Your task to perform on an android device: Go to Yahoo.com Image 0: 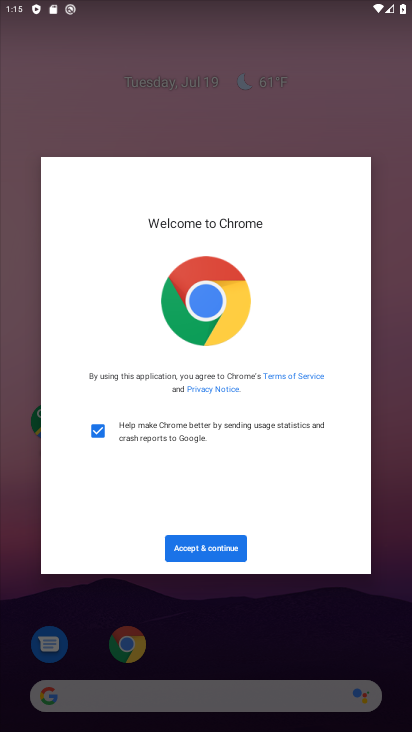
Step 0: click (206, 554)
Your task to perform on an android device: Go to Yahoo.com Image 1: 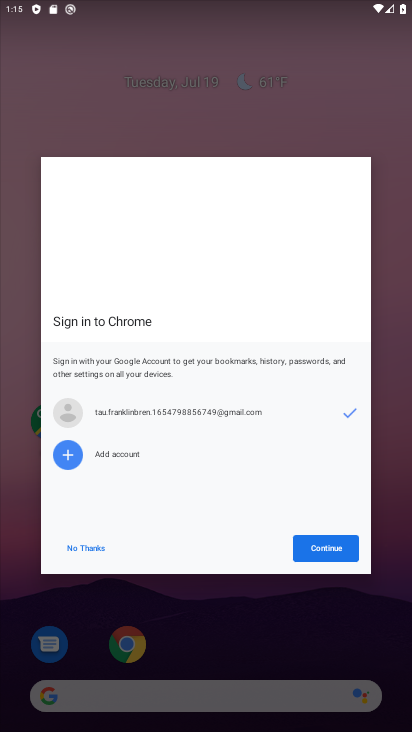
Step 1: click (315, 542)
Your task to perform on an android device: Go to Yahoo.com Image 2: 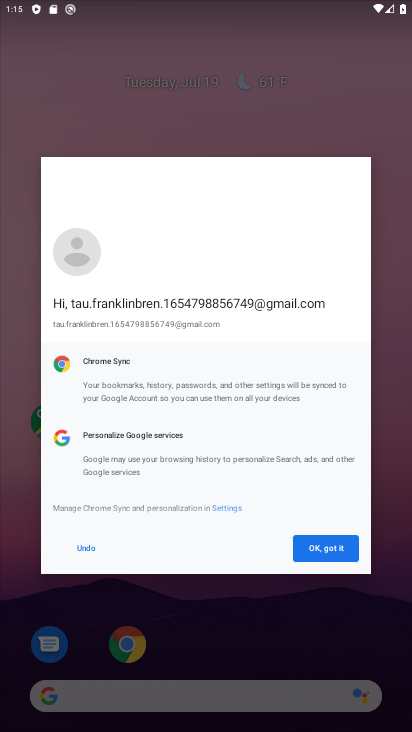
Step 2: click (315, 542)
Your task to perform on an android device: Go to Yahoo.com Image 3: 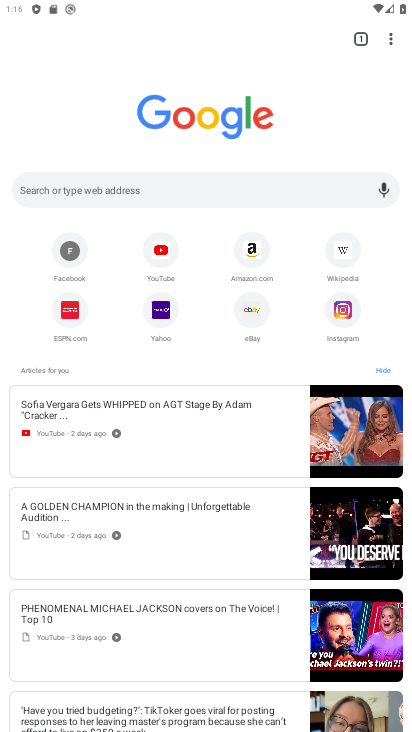
Step 3: click (238, 196)
Your task to perform on an android device: Go to Yahoo.com Image 4: 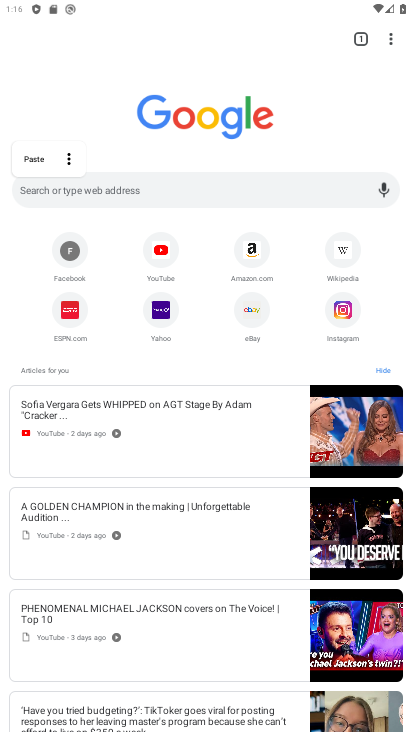
Step 4: click (224, 170)
Your task to perform on an android device: Go to Yahoo.com Image 5: 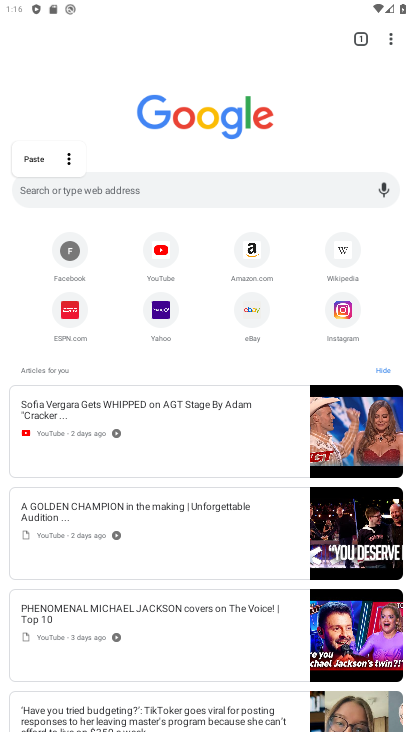
Step 5: click (46, 180)
Your task to perform on an android device: Go to Yahoo.com Image 6: 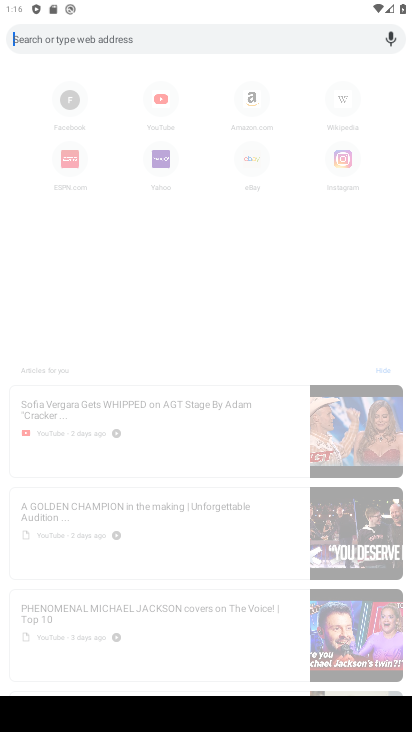
Step 6: type "Yahoo.com"
Your task to perform on an android device: Go to Yahoo.com Image 7: 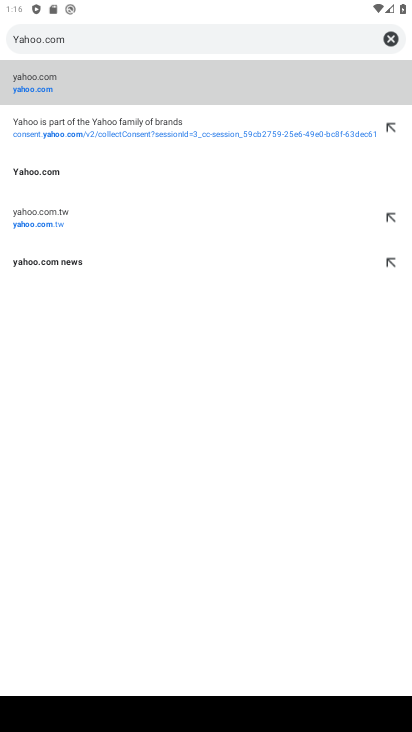
Step 7: click (36, 167)
Your task to perform on an android device: Go to Yahoo.com Image 8: 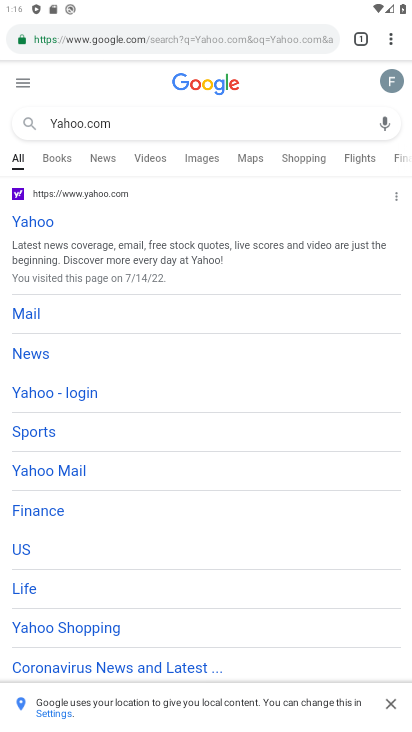
Step 8: task complete